Your task to perform on an android device: Go to calendar. Show me events next week Image 0: 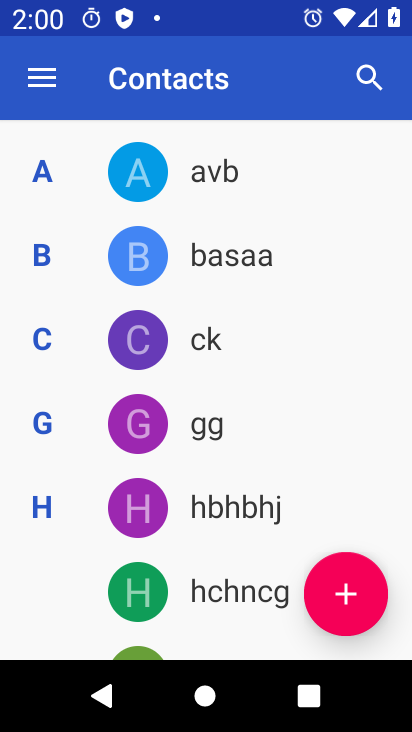
Step 0: press home button
Your task to perform on an android device: Go to calendar. Show me events next week Image 1: 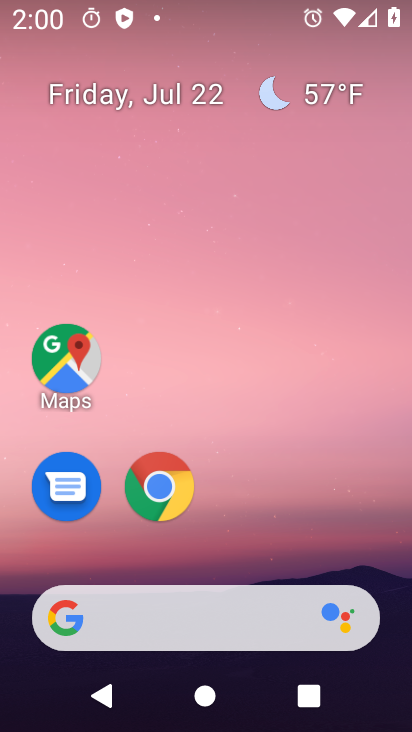
Step 1: drag from (320, 547) to (339, 141)
Your task to perform on an android device: Go to calendar. Show me events next week Image 2: 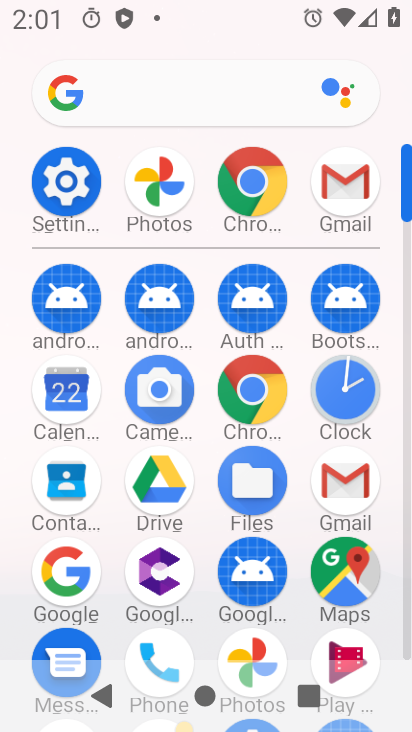
Step 2: click (74, 395)
Your task to perform on an android device: Go to calendar. Show me events next week Image 3: 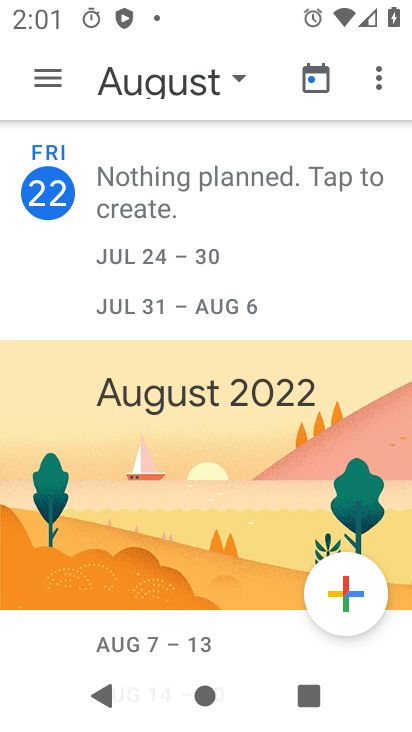
Step 3: drag from (193, 223) to (196, 432)
Your task to perform on an android device: Go to calendar. Show me events next week Image 4: 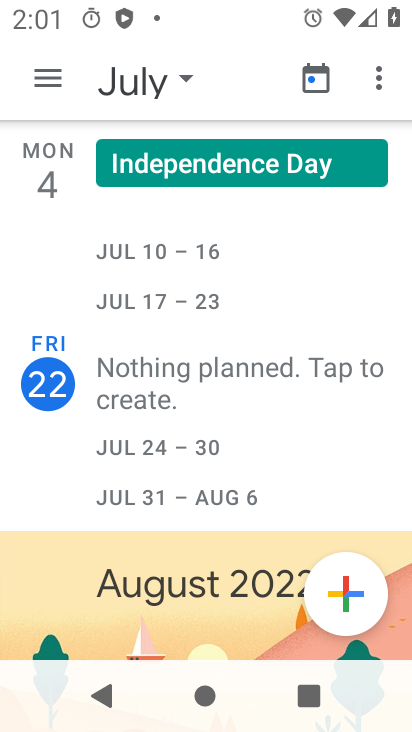
Step 4: click (186, 92)
Your task to perform on an android device: Go to calendar. Show me events next week Image 5: 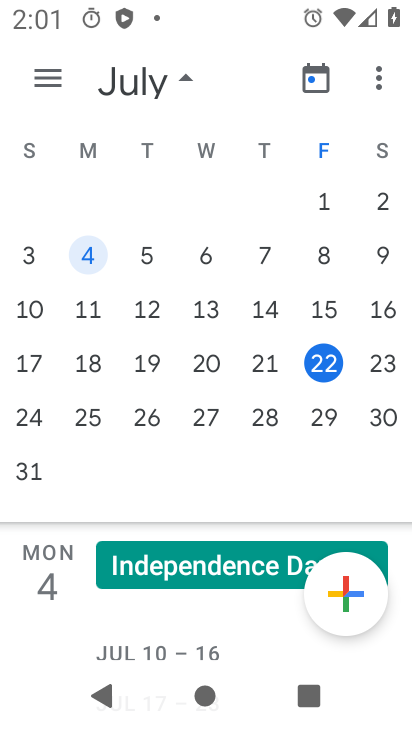
Step 5: click (101, 411)
Your task to perform on an android device: Go to calendar. Show me events next week Image 6: 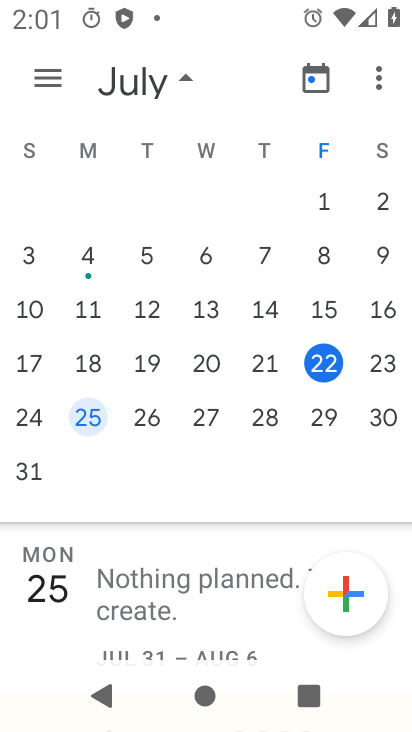
Step 6: task complete